Your task to perform on an android device: turn on priority inbox in the gmail app Image 0: 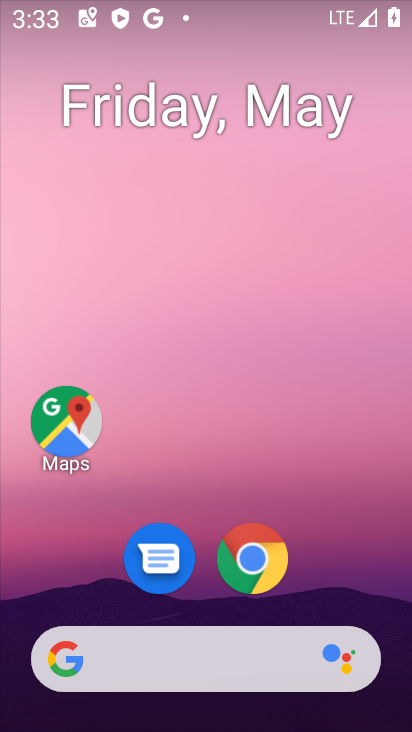
Step 0: press home button
Your task to perform on an android device: turn on priority inbox in the gmail app Image 1: 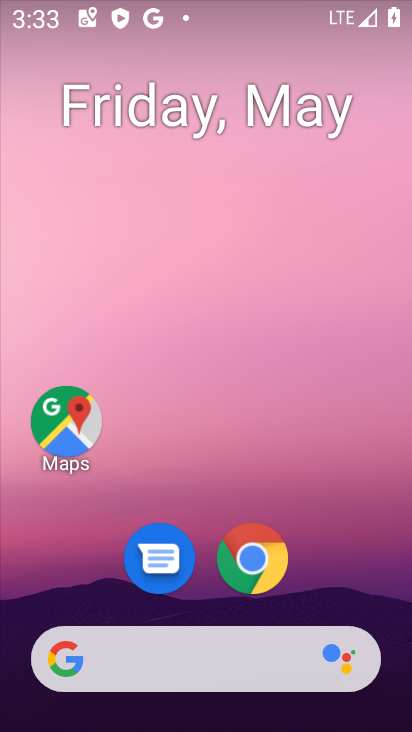
Step 1: drag from (176, 660) to (279, 167)
Your task to perform on an android device: turn on priority inbox in the gmail app Image 2: 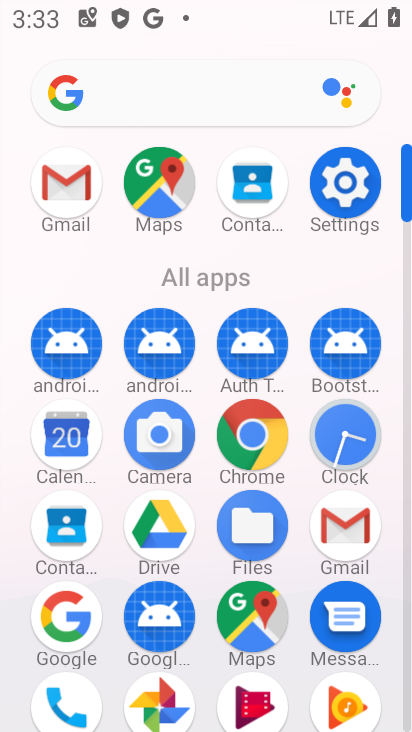
Step 2: click (62, 188)
Your task to perform on an android device: turn on priority inbox in the gmail app Image 3: 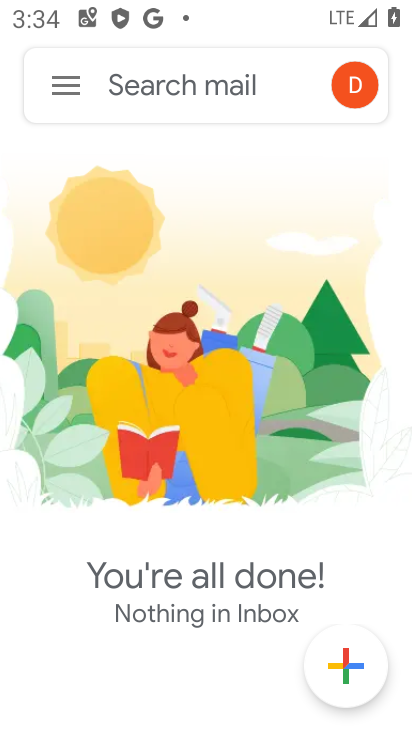
Step 3: click (65, 87)
Your task to perform on an android device: turn on priority inbox in the gmail app Image 4: 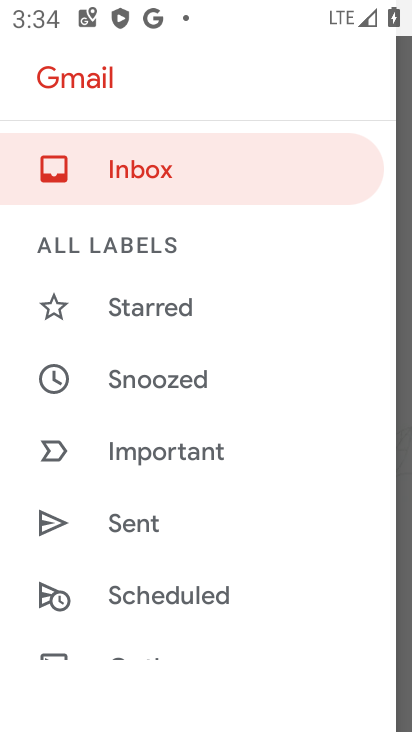
Step 4: drag from (232, 652) to (319, 131)
Your task to perform on an android device: turn on priority inbox in the gmail app Image 5: 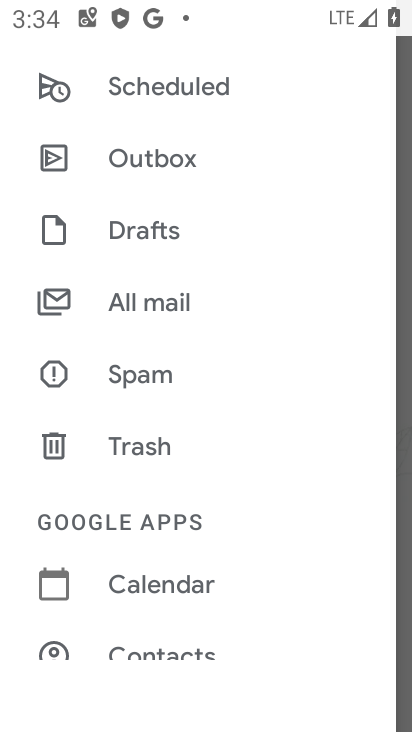
Step 5: drag from (222, 639) to (283, 182)
Your task to perform on an android device: turn on priority inbox in the gmail app Image 6: 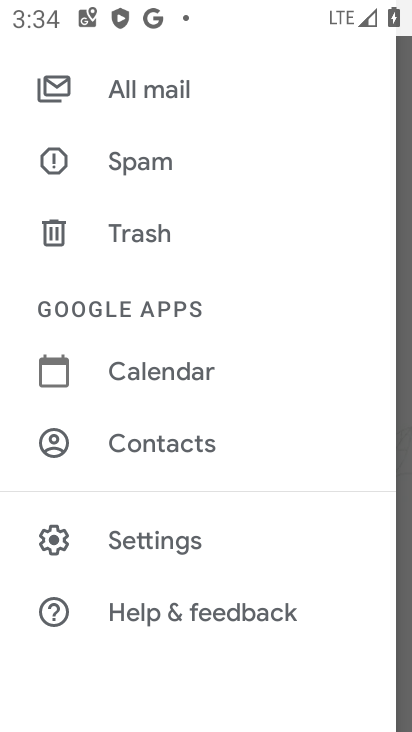
Step 6: click (179, 544)
Your task to perform on an android device: turn on priority inbox in the gmail app Image 7: 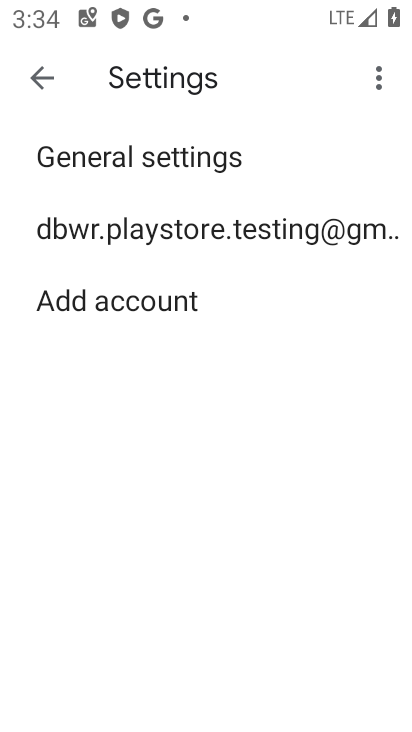
Step 7: click (259, 236)
Your task to perform on an android device: turn on priority inbox in the gmail app Image 8: 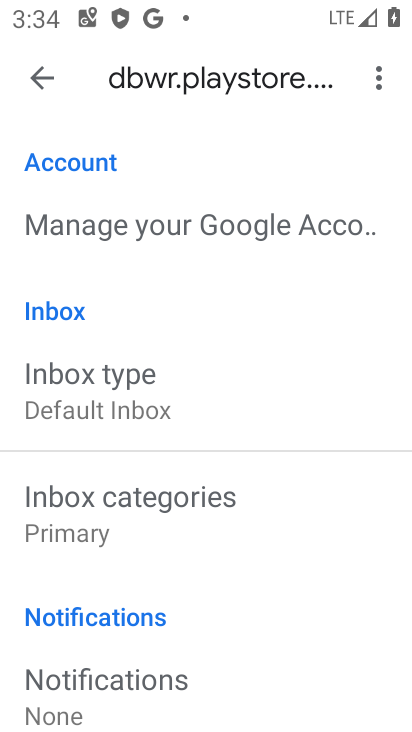
Step 8: click (136, 402)
Your task to perform on an android device: turn on priority inbox in the gmail app Image 9: 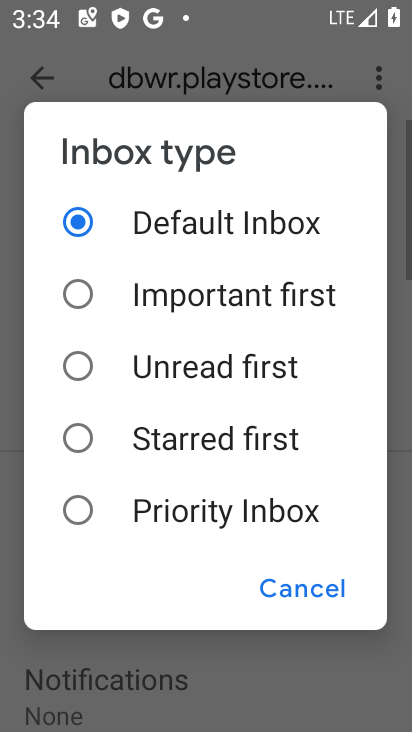
Step 9: click (82, 508)
Your task to perform on an android device: turn on priority inbox in the gmail app Image 10: 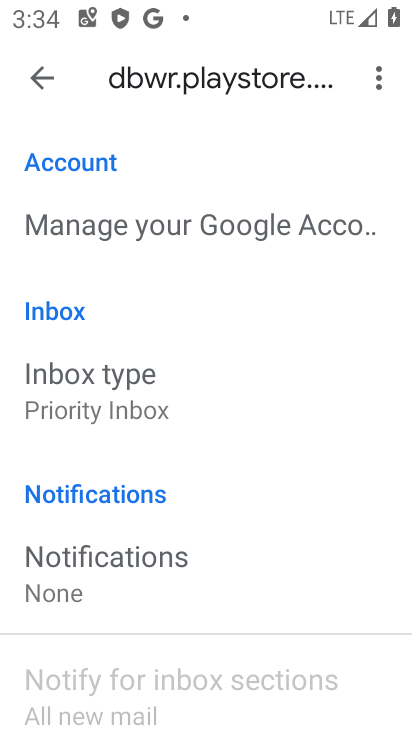
Step 10: task complete